Your task to perform on an android device: Search for seafood restaurants on Google Maps Image 0: 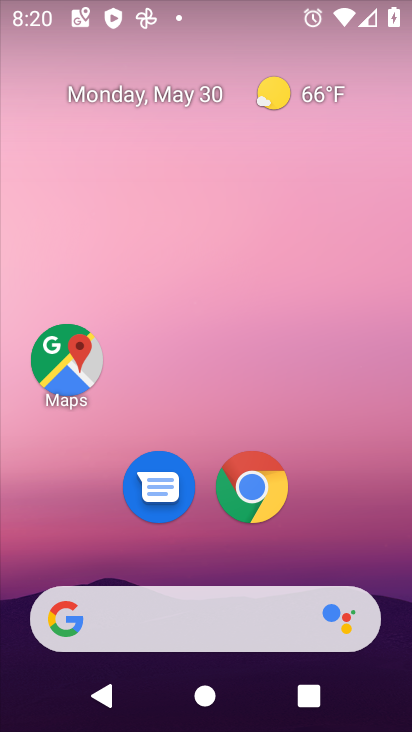
Step 0: press home button
Your task to perform on an android device: Search for seafood restaurants on Google Maps Image 1: 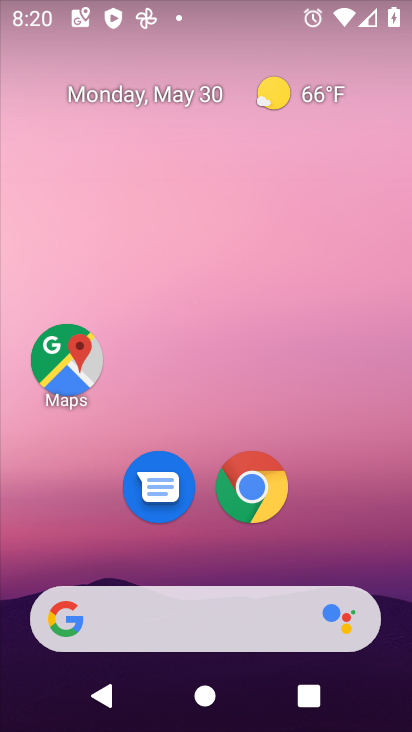
Step 1: drag from (339, 549) to (252, 127)
Your task to perform on an android device: Search for seafood restaurants on Google Maps Image 2: 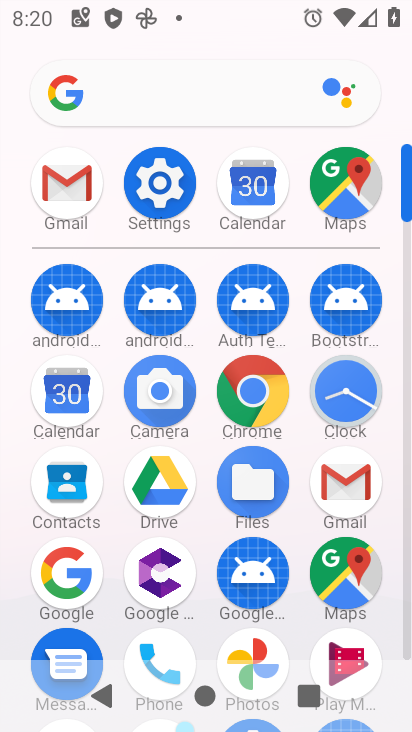
Step 2: click (344, 192)
Your task to perform on an android device: Search for seafood restaurants on Google Maps Image 3: 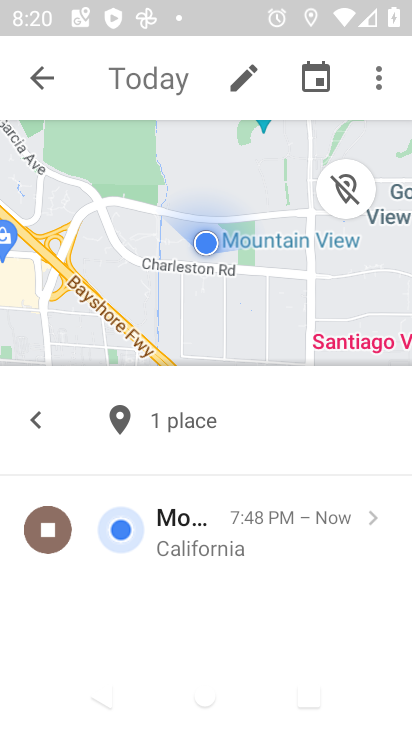
Step 3: click (126, 86)
Your task to perform on an android device: Search for seafood restaurants on Google Maps Image 4: 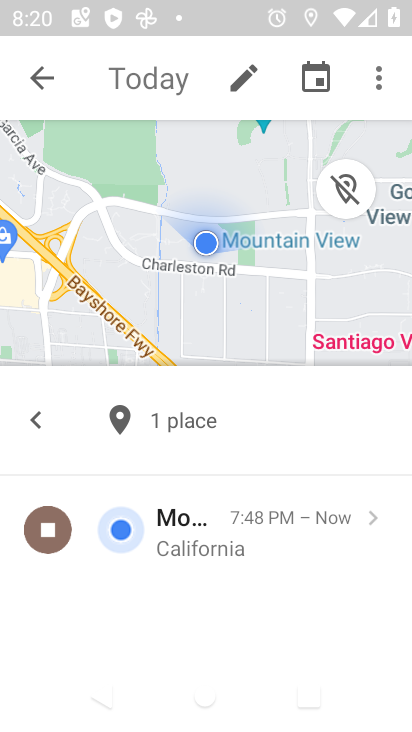
Step 4: click (158, 81)
Your task to perform on an android device: Search for seafood restaurants on Google Maps Image 5: 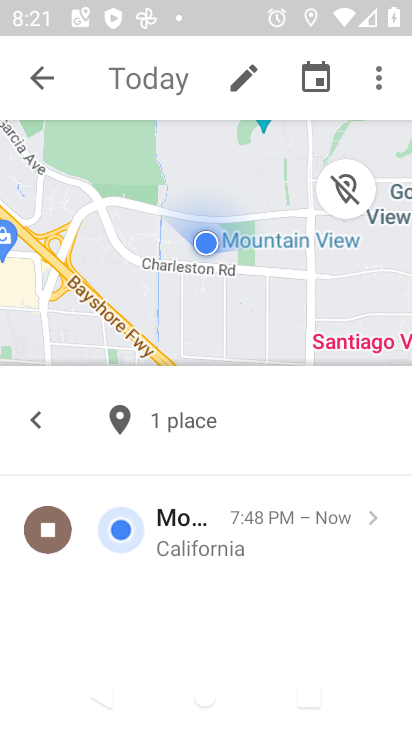
Step 5: click (42, 81)
Your task to perform on an android device: Search for seafood restaurants on Google Maps Image 6: 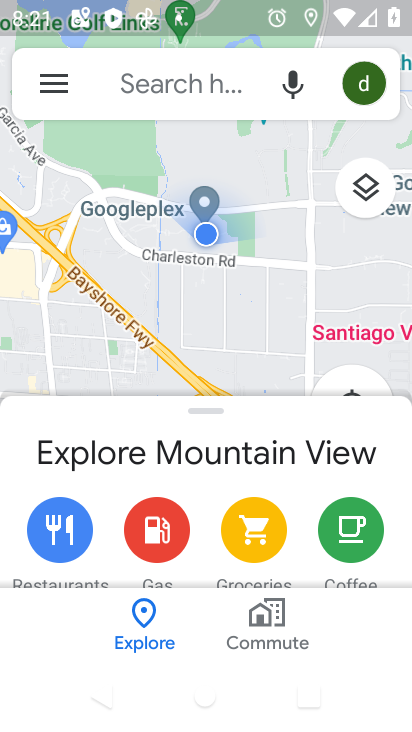
Step 6: click (170, 91)
Your task to perform on an android device: Search for seafood restaurants on Google Maps Image 7: 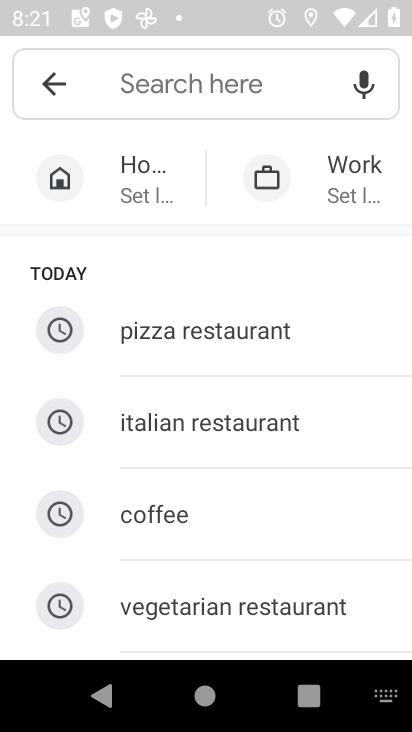
Step 7: type "seafood restaurants "
Your task to perform on an android device: Search for seafood restaurants on Google Maps Image 8: 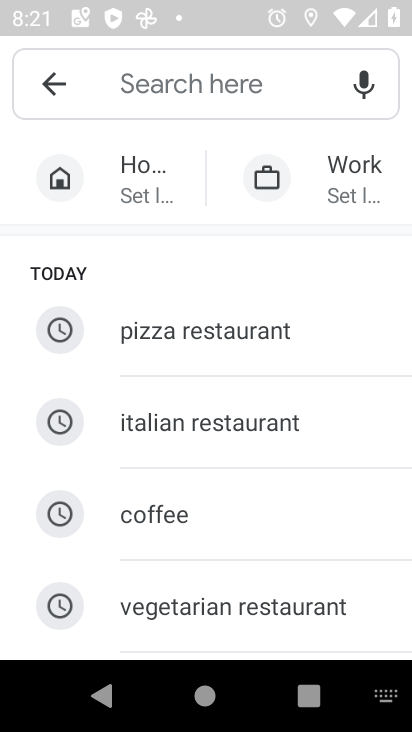
Step 8: click (164, 71)
Your task to perform on an android device: Search for seafood restaurants on Google Maps Image 9: 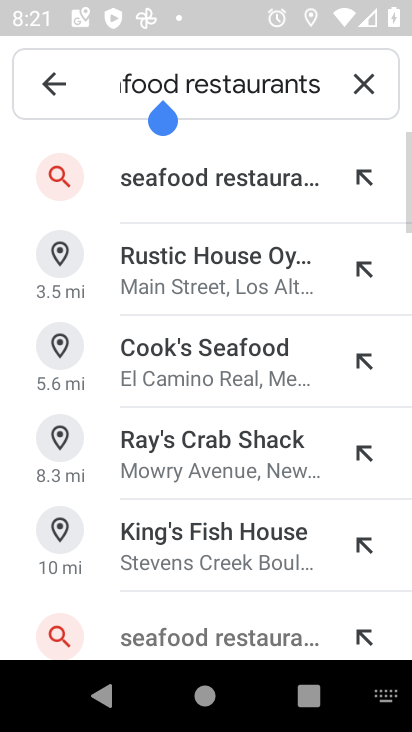
Step 9: click (238, 181)
Your task to perform on an android device: Search for seafood restaurants on Google Maps Image 10: 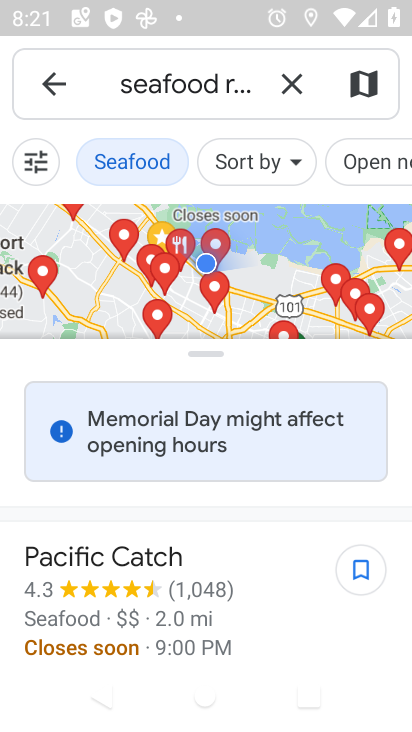
Step 10: task complete